Your task to perform on an android device: toggle improve location accuracy Image 0: 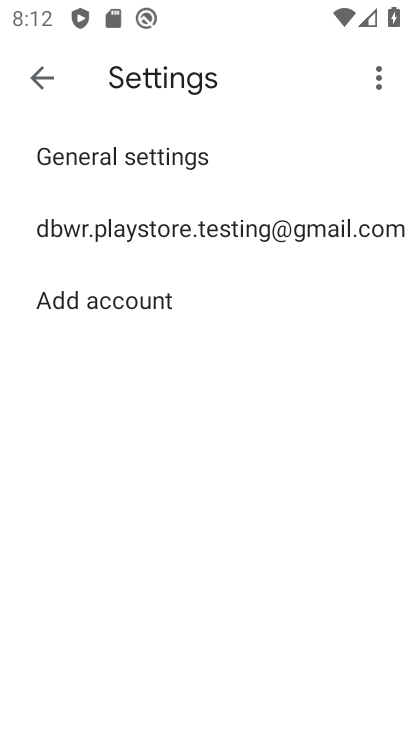
Step 0: press home button
Your task to perform on an android device: toggle improve location accuracy Image 1: 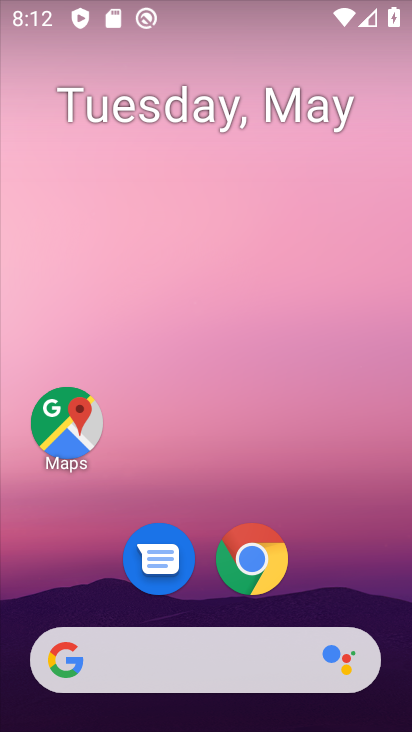
Step 1: drag from (238, 648) to (208, 88)
Your task to perform on an android device: toggle improve location accuracy Image 2: 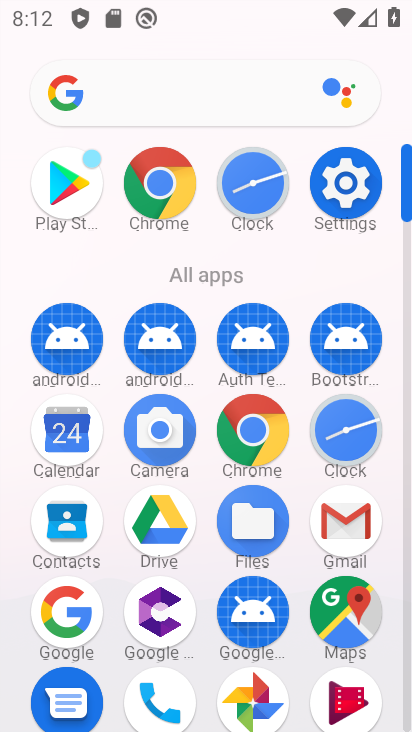
Step 2: click (344, 196)
Your task to perform on an android device: toggle improve location accuracy Image 3: 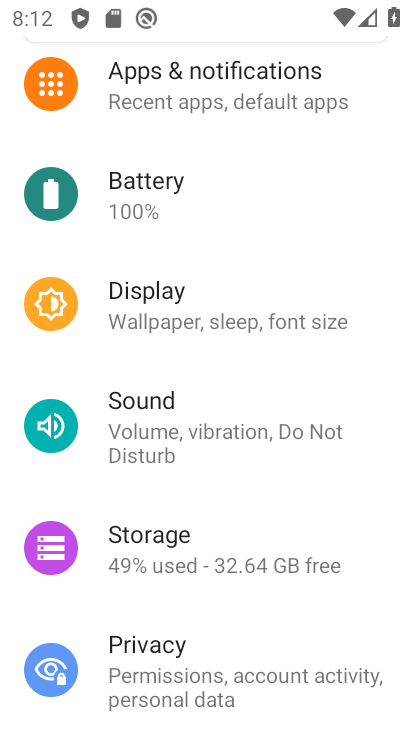
Step 3: drag from (149, 591) to (131, 191)
Your task to perform on an android device: toggle improve location accuracy Image 4: 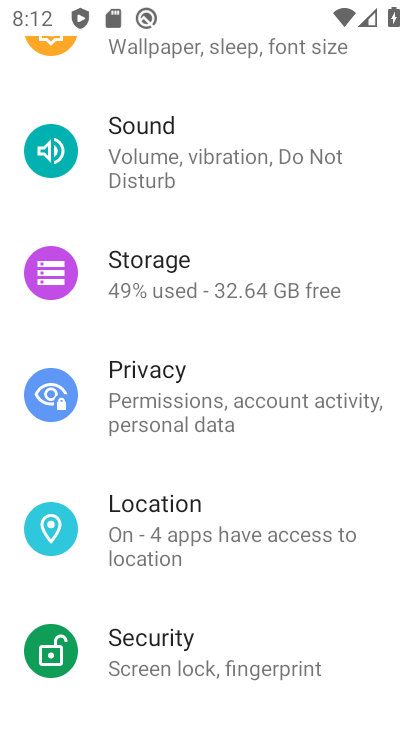
Step 4: click (169, 529)
Your task to perform on an android device: toggle improve location accuracy Image 5: 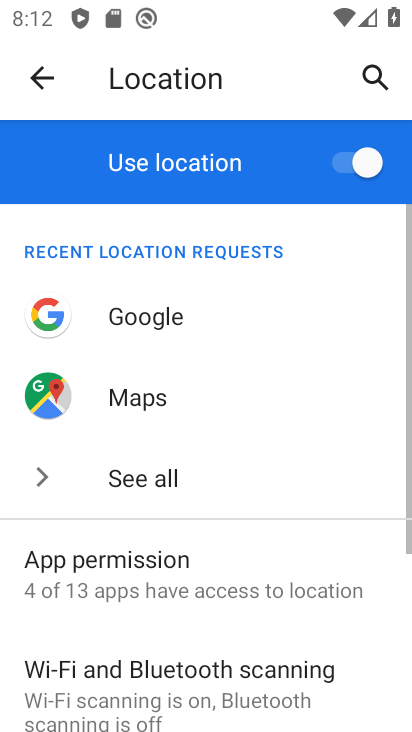
Step 5: drag from (191, 669) to (163, 366)
Your task to perform on an android device: toggle improve location accuracy Image 6: 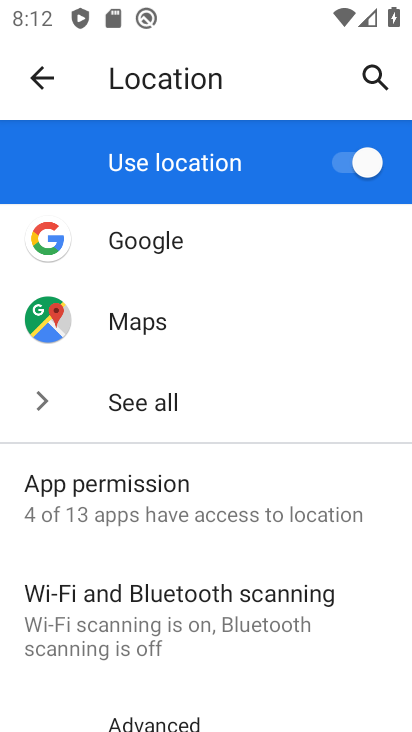
Step 6: drag from (293, 695) to (245, 296)
Your task to perform on an android device: toggle improve location accuracy Image 7: 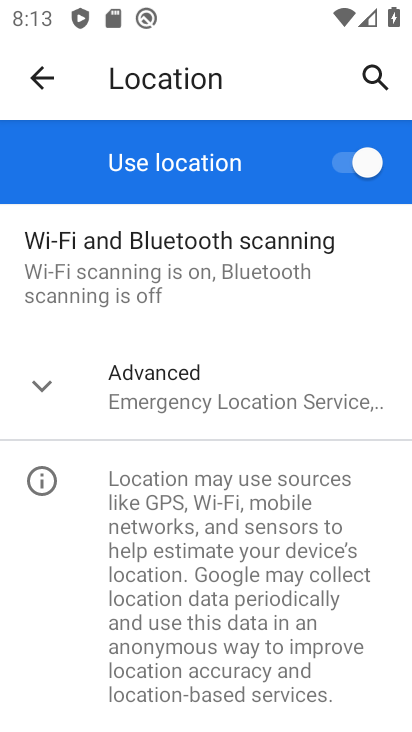
Step 7: click (141, 387)
Your task to perform on an android device: toggle improve location accuracy Image 8: 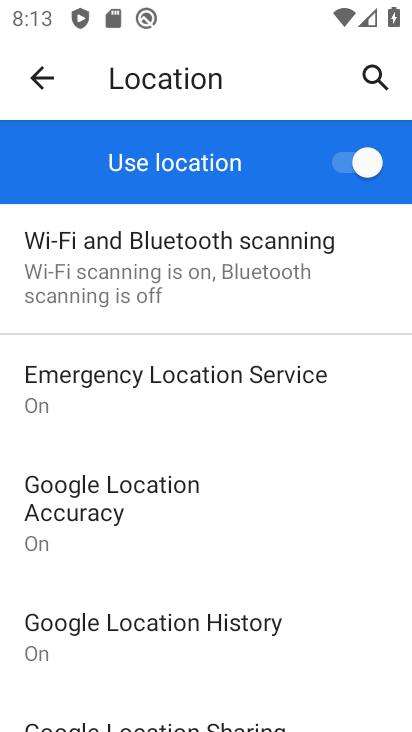
Step 8: click (183, 526)
Your task to perform on an android device: toggle improve location accuracy Image 9: 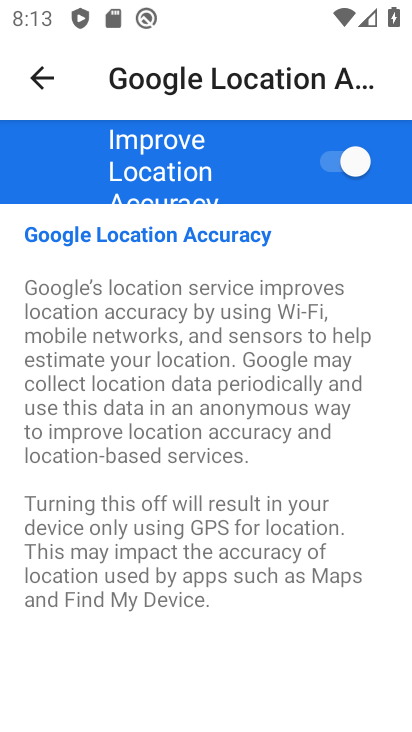
Step 9: click (351, 159)
Your task to perform on an android device: toggle improve location accuracy Image 10: 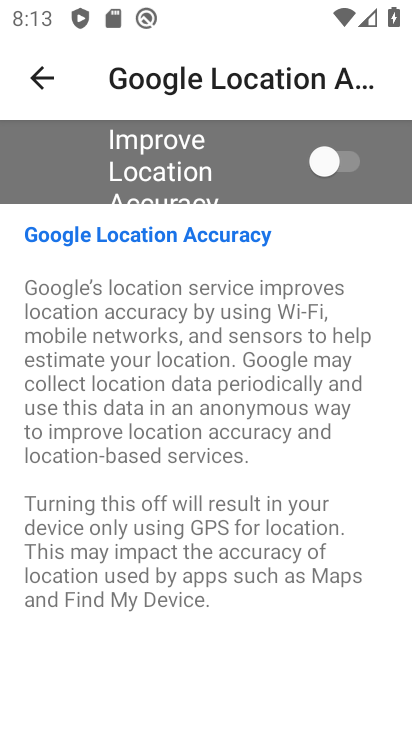
Step 10: task complete